Your task to perform on an android device: Toggle the flashlight Image 0: 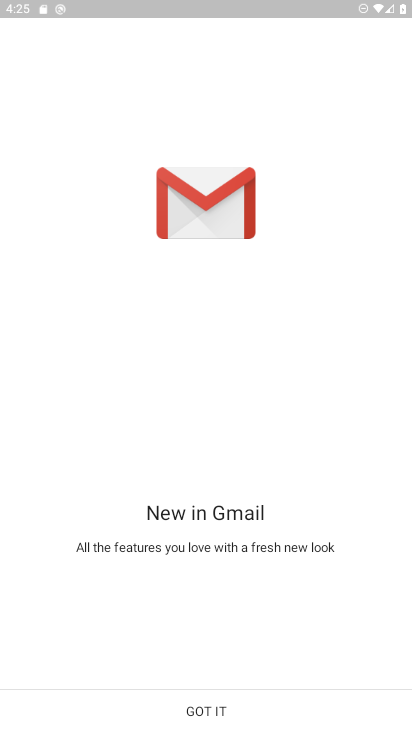
Step 0: press home button
Your task to perform on an android device: Toggle the flashlight Image 1: 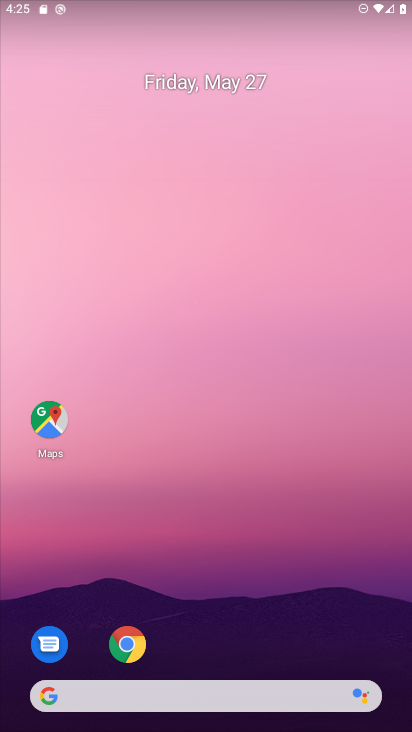
Step 1: drag from (228, 429) to (225, 725)
Your task to perform on an android device: Toggle the flashlight Image 2: 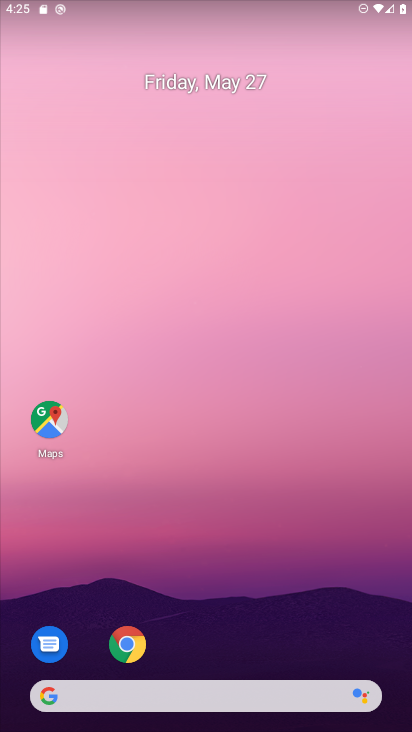
Step 2: drag from (206, 630) to (283, 126)
Your task to perform on an android device: Toggle the flashlight Image 3: 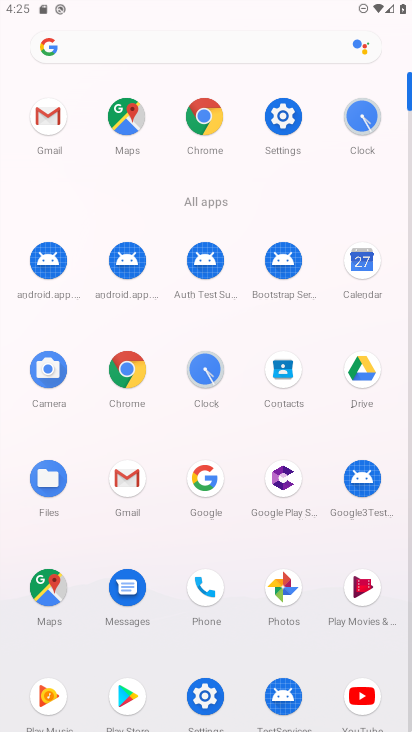
Step 3: click (276, 119)
Your task to perform on an android device: Toggle the flashlight Image 4: 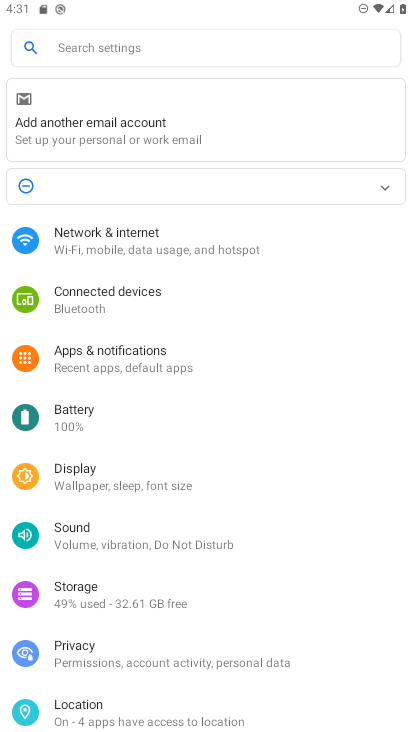
Step 4: task complete